Your task to perform on an android device: Open Google Chrome and open the bookmarks view Image 0: 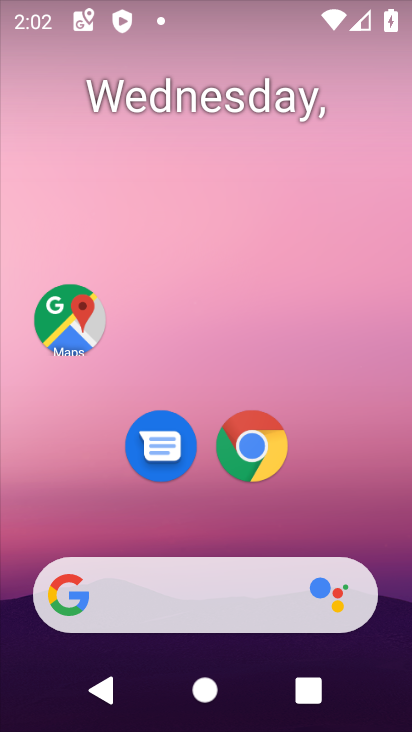
Step 0: click (265, 454)
Your task to perform on an android device: Open Google Chrome and open the bookmarks view Image 1: 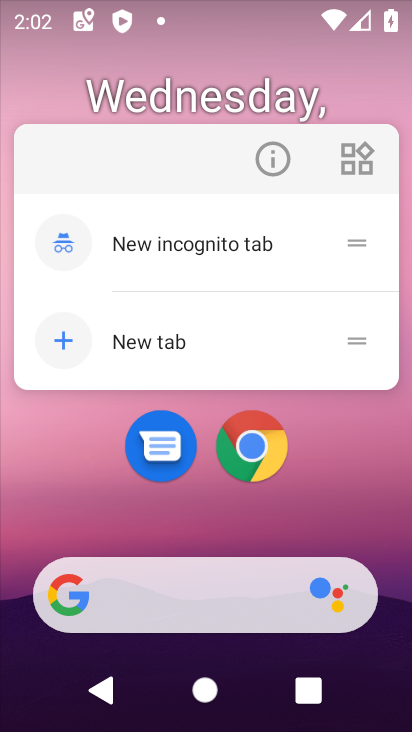
Step 1: click (260, 452)
Your task to perform on an android device: Open Google Chrome and open the bookmarks view Image 2: 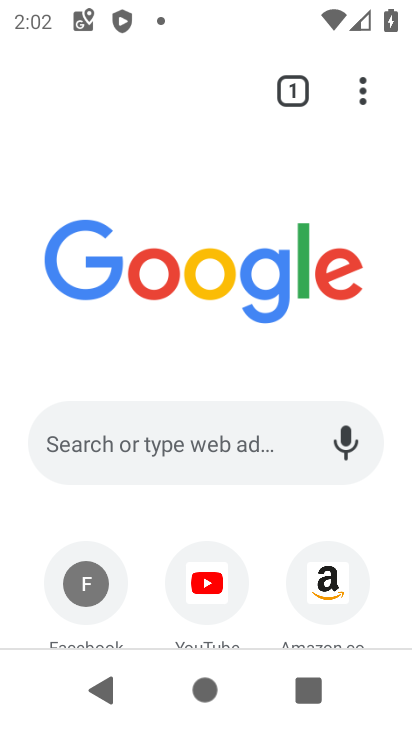
Step 2: task complete